Your task to perform on an android device: Open accessibility settings Image 0: 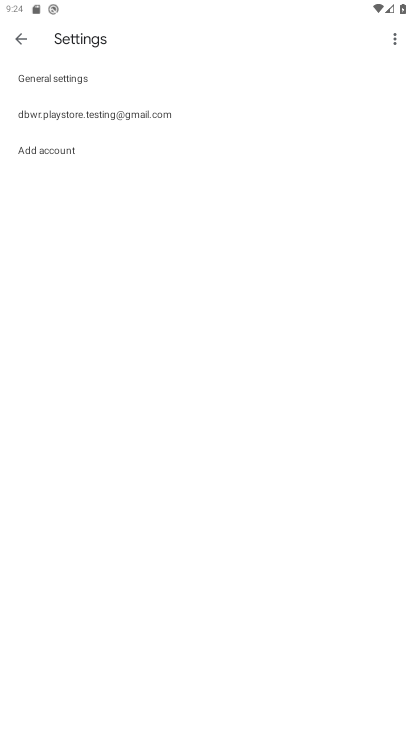
Step 0: press home button
Your task to perform on an android device: Open accessibility settings Image 1: 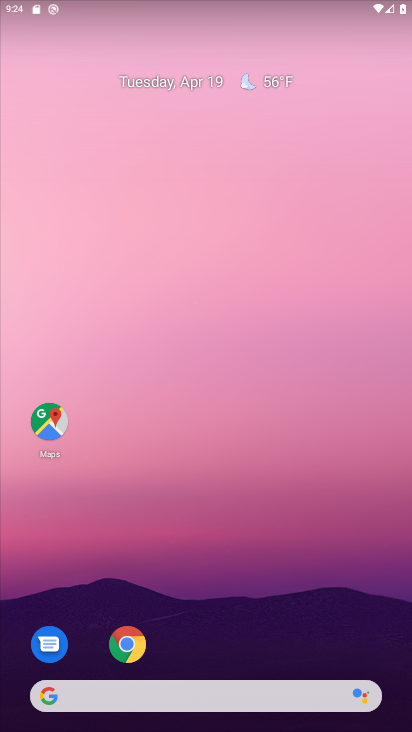
Step 1: drag from (241, 633) to (233, 148)
Your task to perform on an android device: Open accessibility settings Image 2: 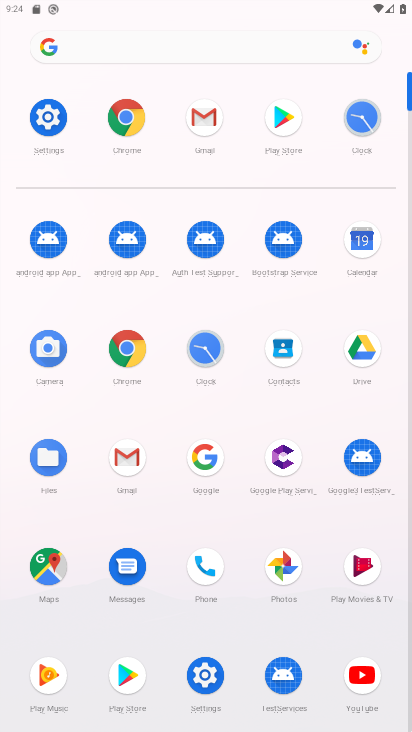
Step 2: click (40, 128)
Your task to perform on an android device: Open accessibility settings Image 3: 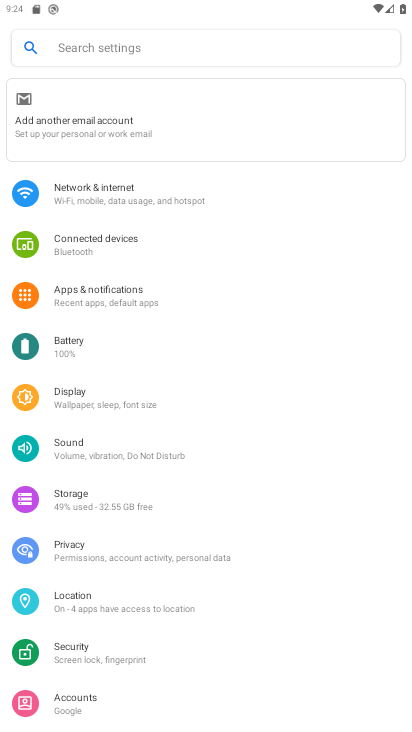
Step 3: drag from (200, 639) to (201, 373)
Your task to perform on an android device: Open accessibility settings Image 4: 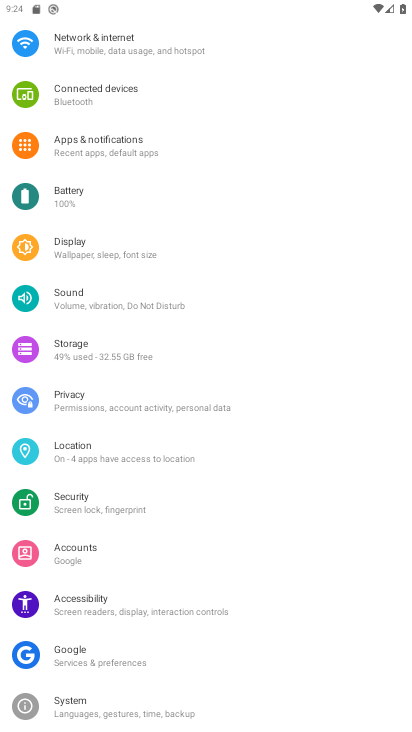
Step 4: drag from (171, 628) to (214, 318)
Your task to perform on an android device: Open accessibility settings Image 5: 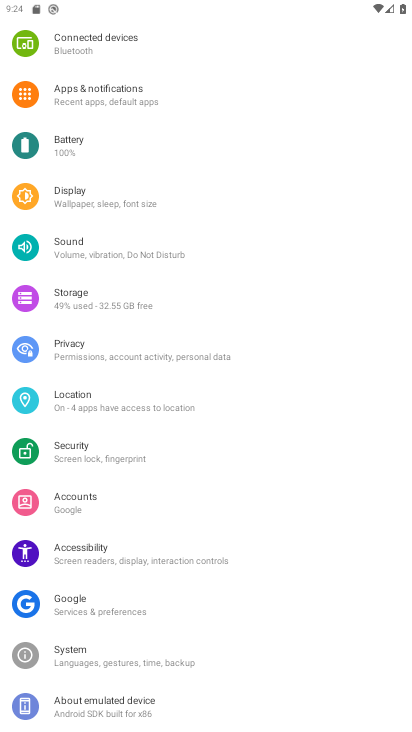
Step 5: click (143, 556)
Your task to perform on an android device: Open accessibility settings Image 6: 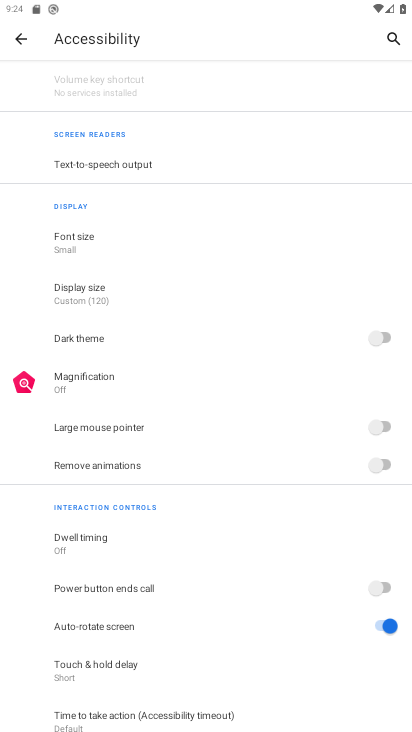
Step 6: task complete